Your task to perform on an android device: open chrome and create a bookmark for the current page Image 0: 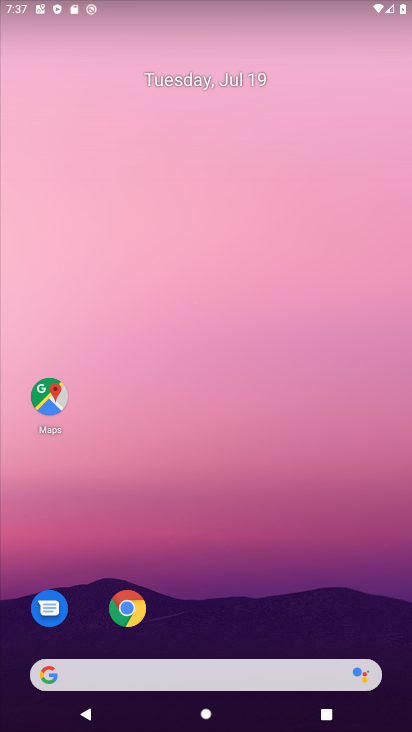
Step 0: click (124, 607)
Your task to perform on an android device: open chrome and create a bookmark for the current page Image 1: 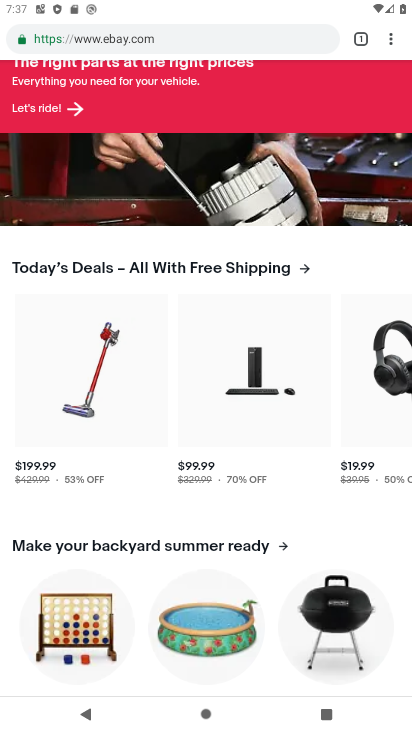
Step 1: click (388, 52)
Your task to perform on an android device: open chrome and create a bookmark for the current page Image 2: 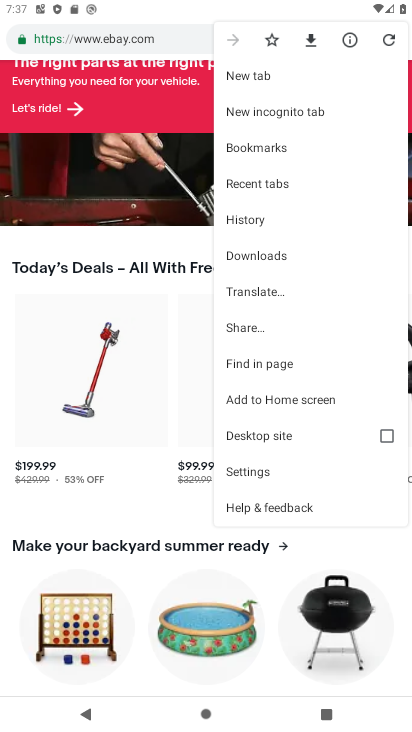
Step 2: click (273, 40)
Your task to perform on an android device: open chrome and create a bookmark for the current page Image 3: 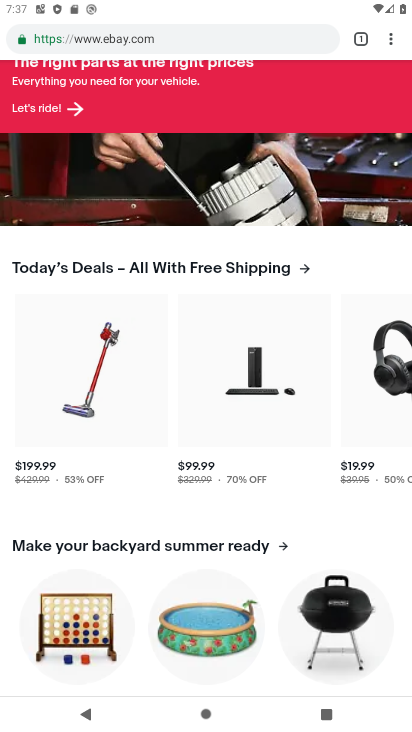
Step 3: task complete